Your task to perform on an android device: Open network settings Image 0: 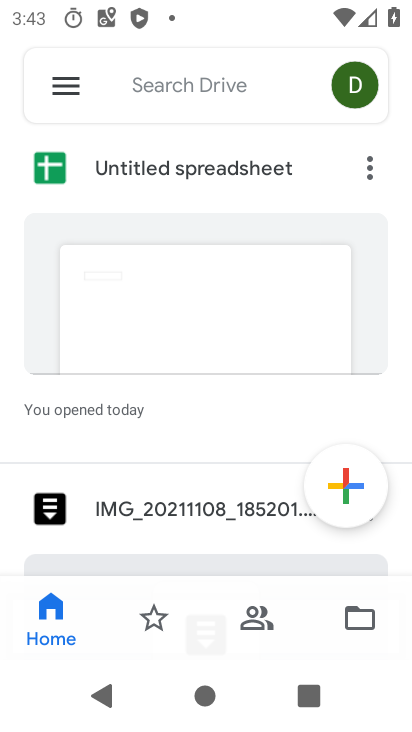
Step 0: press home button
Your task to perform on an android device: Open network settings Image 1: 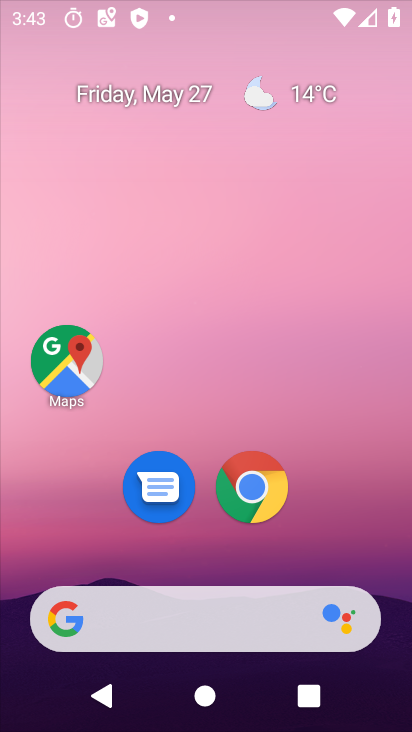
Step 1: drag from (325, 469) to (286, 54)
Your task to perform on an android device: Open network settings Image 2: 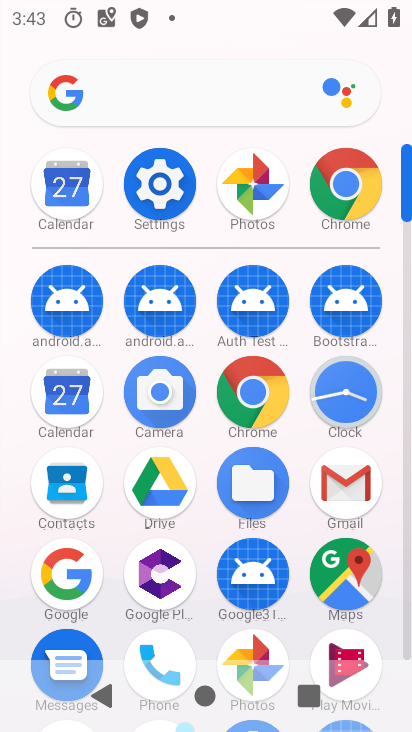
Step 2: click (143, 174)
Your task to perform on an android device: Open network settings Image 3: 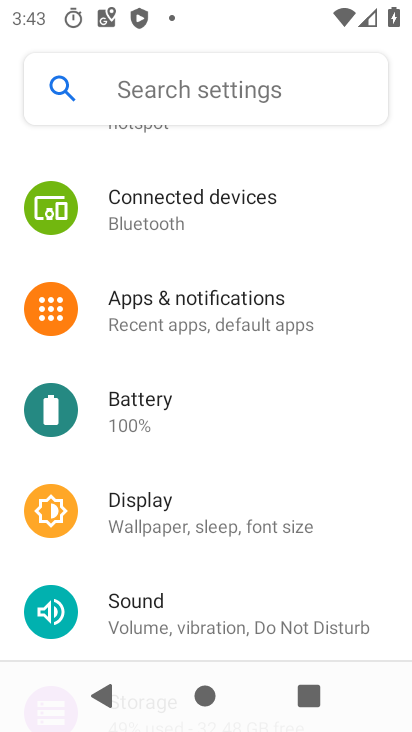
Step 3: drag from (229, 510) to (282, 170)
Your task to perform on an android device: Open network settings Image 4: 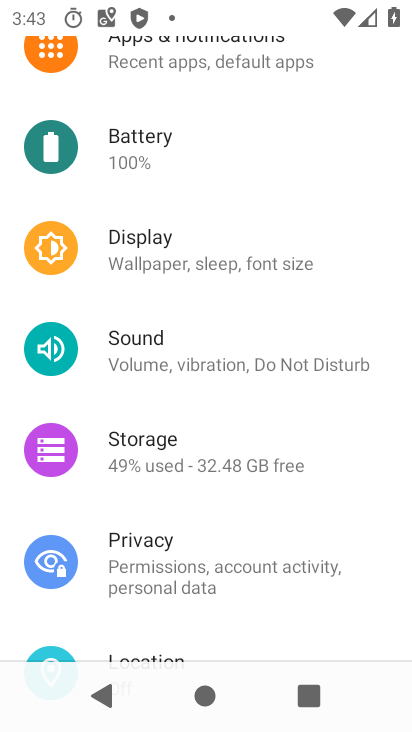
Step 4: drag from (170, 464) to (266, 166)
Your task to perform on an android device: Open network settings Image 5: 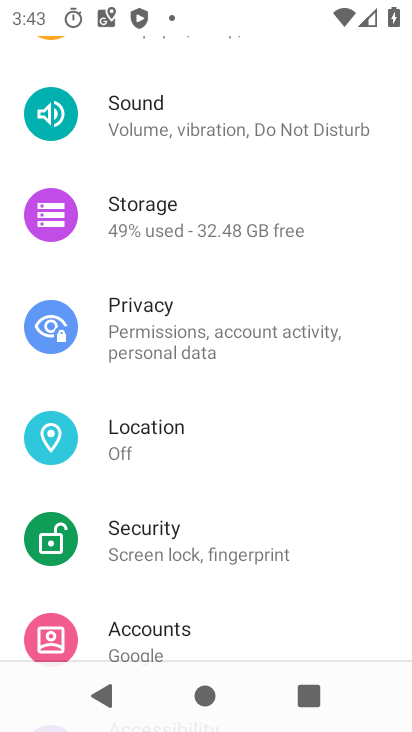
Step 5: drag from (200, 216) to (227, 640)
Your task to perform on an android device: Open network settings Image 6: 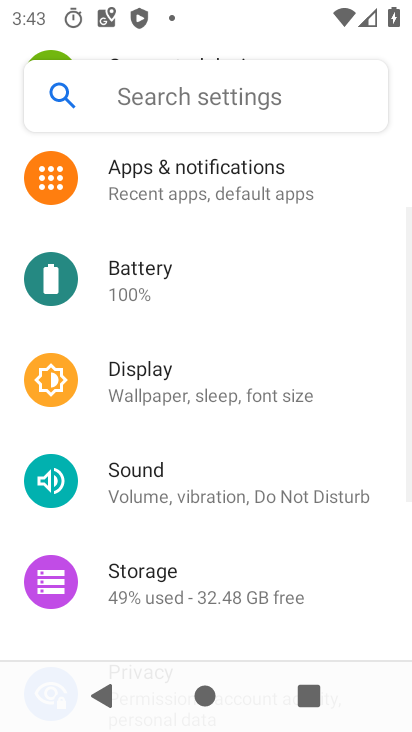
Step 6: drag from (229, 300) to (225, 620)
Your task to perform on an android device: Open network settings Image 7: 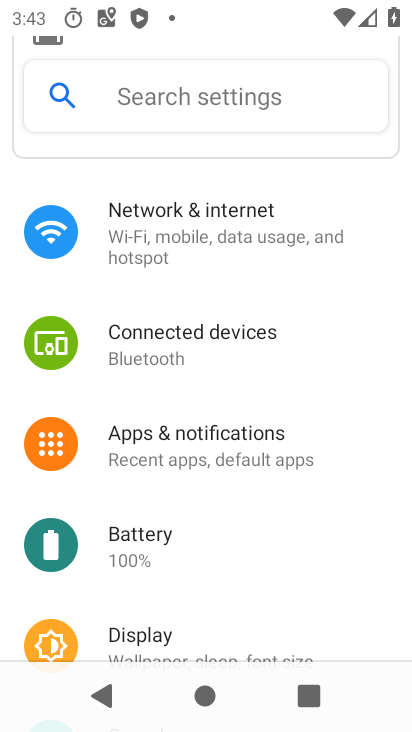
Step 7: click (189, 224)
Your task to perform on an android device: Open network settings Image 8: 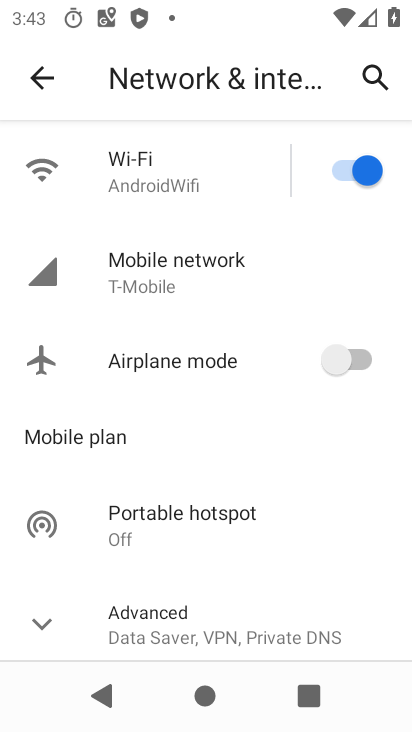
Step 8: task complete